Your task to perform on an android device: turn off location history Image 0: 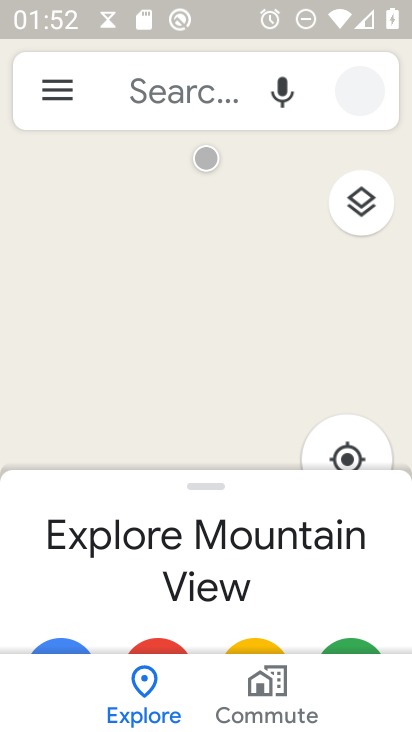
Step 0: press home button
Your task to perform on an android device: turn off location history Image 1: 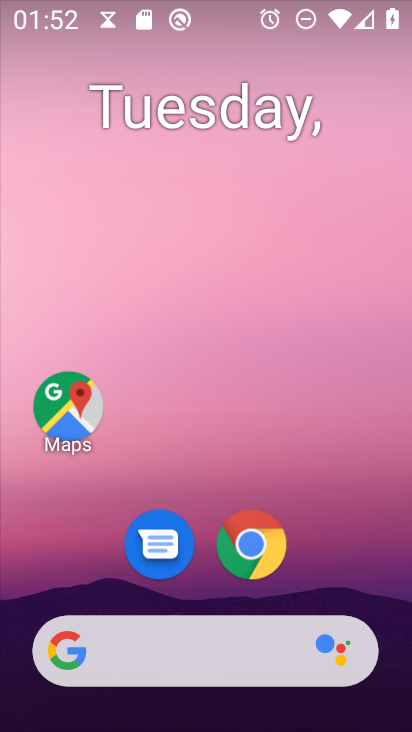
Step 1: drag from (337, 576) to (374, 30)
Your task to perform on an android device: turn off location history Image 2: 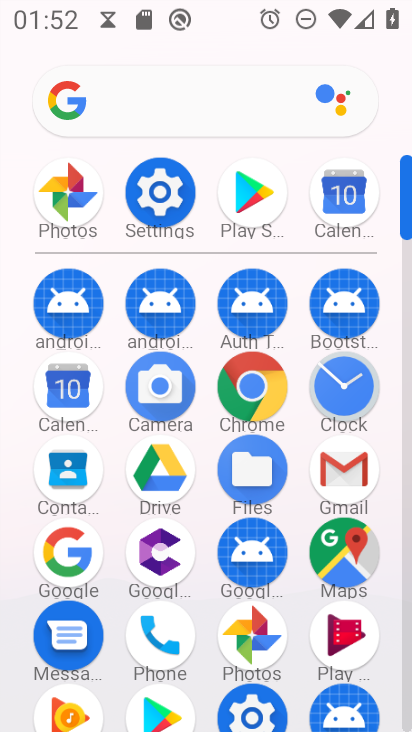
Step 2: click (153, 202)
Your task to perform on an android device: turn off location history Image 3: 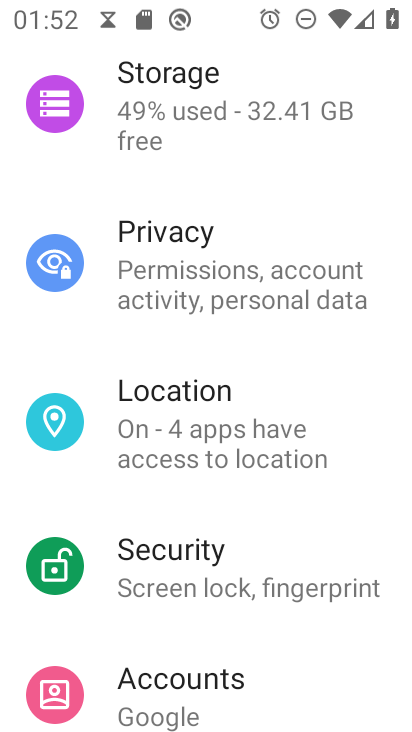
Step 3: click (172, 463)
Your task to perform on an android device: turn off location history Image 4: 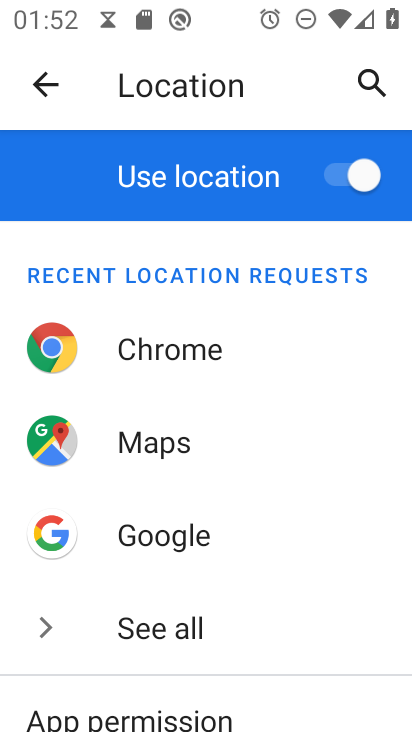
Step 4: drag from (152, 575) to (172, 356)
Your task to perform on an android device: turn off location history Image 5: 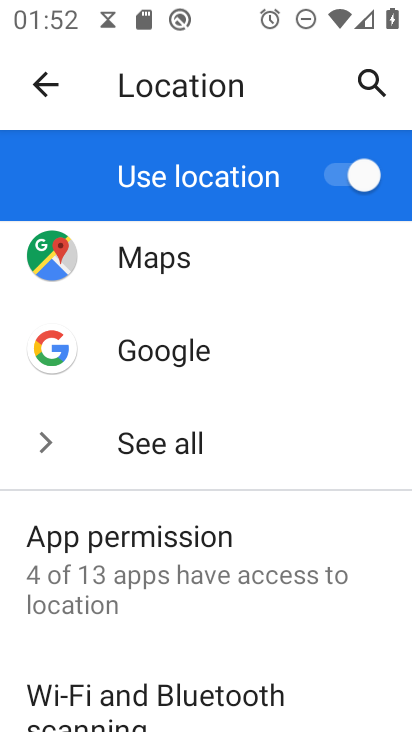
Step 5: drag from (221, 657) to (232, 440)
Your task to perform on an android device: turn off location history Image 6: 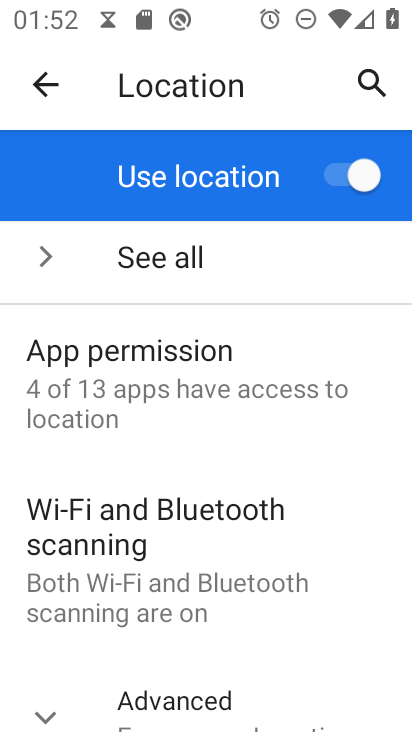
Step 6: drag from (231, 643) to (237, 339)
Your task to perform on an android device: turn off location history Image 7: 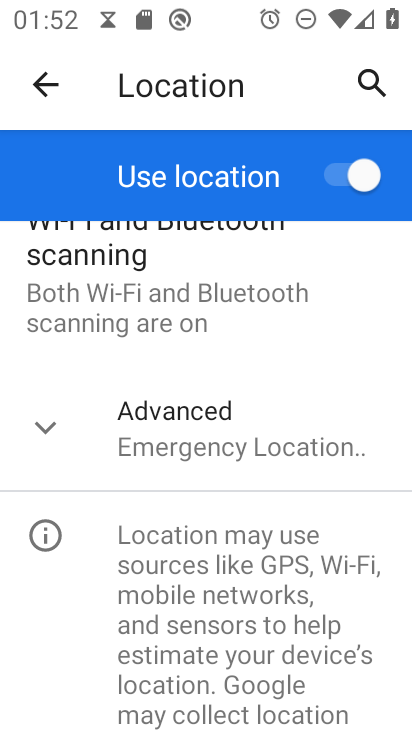
Step 7: click (206, 455)
Your task to perform on an android device: turn off location history Image 8: 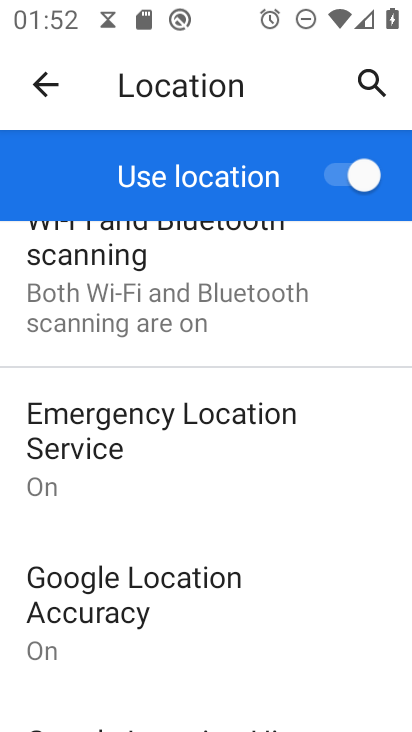
Step 8: drag from (192, 617) to (246, 415)
Your task to perform on an android device: turn off location history Image 9: 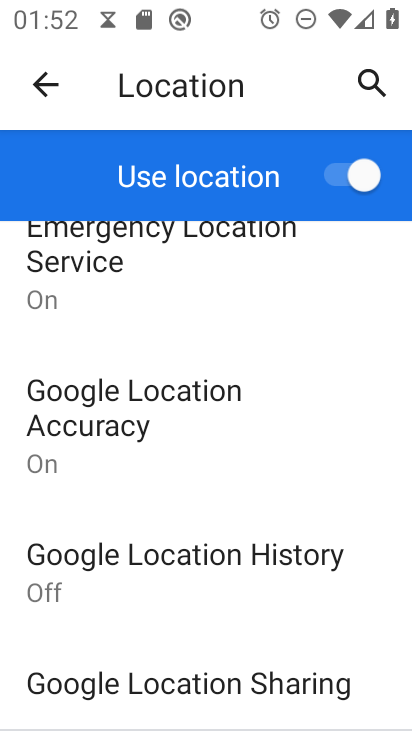
Step 9: click (230, 554)
Your task to perform on an android device: turn off location history Image 10: 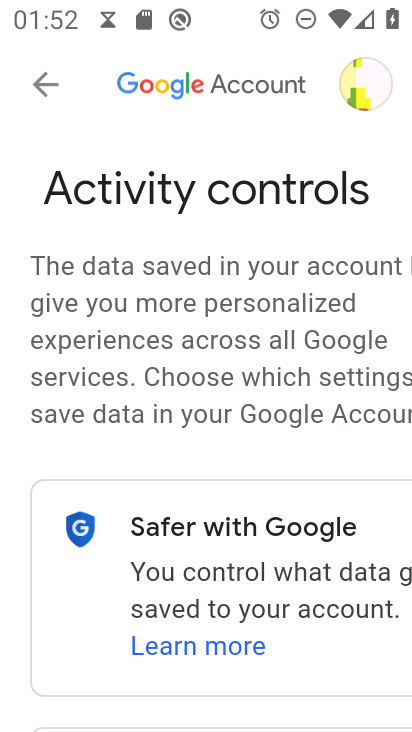
Step 10: task complete